Your task to perform on an android device: Is it going to rain this weekend? Image 0: 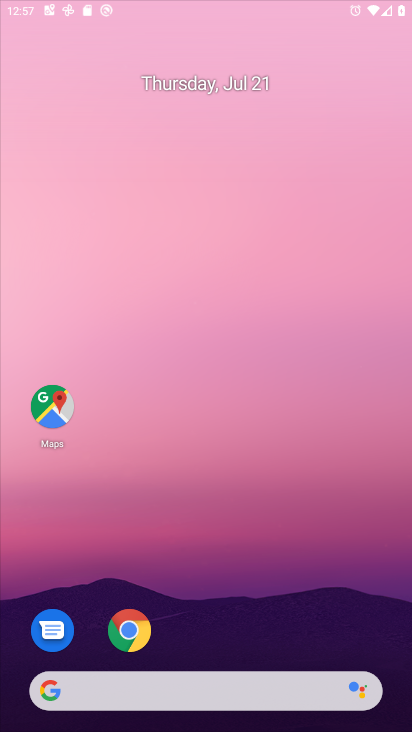
Step 0: drag from (224, 649) to (298, 102)
Your task to perform on an android device: Is it going to rain this weekend? Image 1: 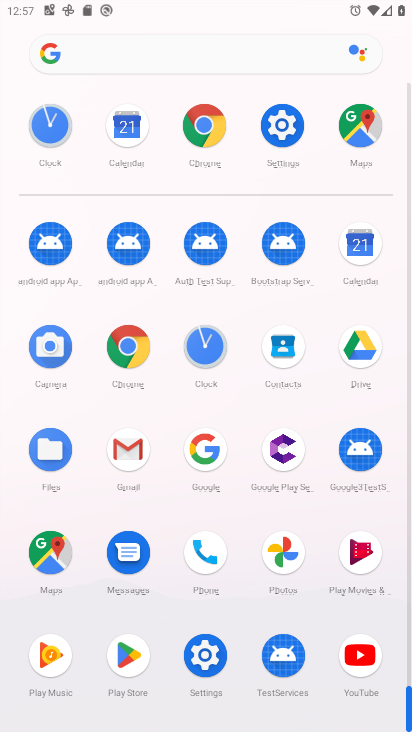
Step 1: click (350, 231)
Your task to perform on an android device: Is it going to rain this weekend? Image 2: 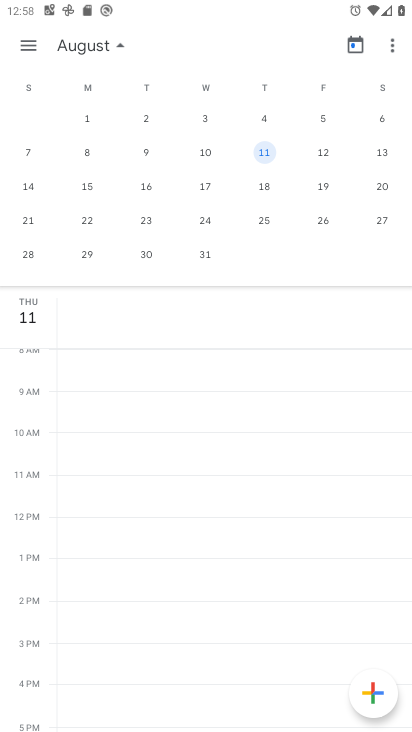
Step 2: press home button
Your task to perform on an android device: Is it going to rain this weekend? Image 3: 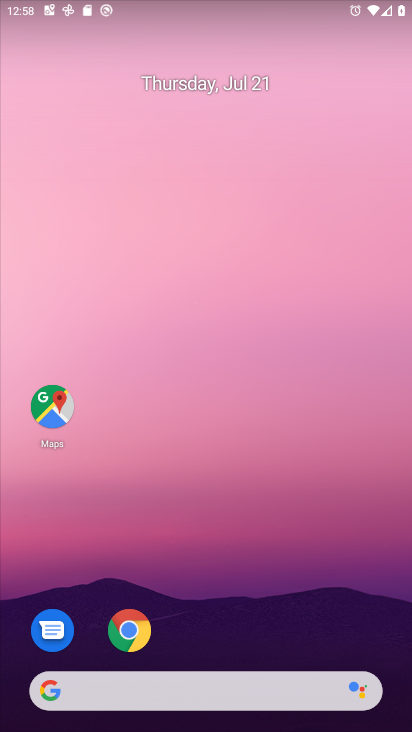
Step 3: drag from (245, 531) to (33, 262)
Your task to perform on an android device: Is it going to rain this weekend? Image 4: 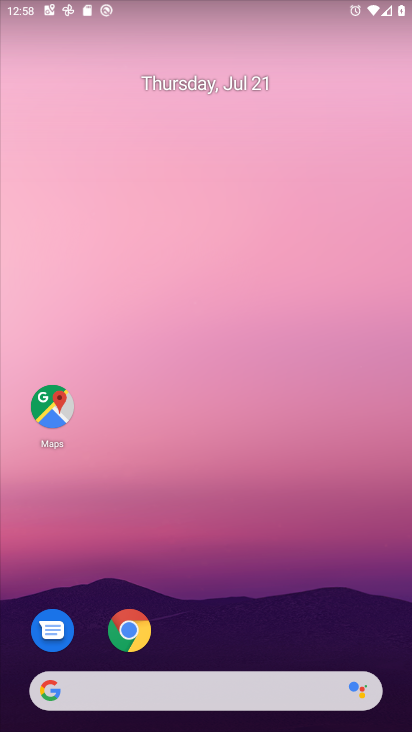
Step 4: drag from (203, 574) to (297, 1)
Your task to perform on an android device: Is it going to rain this weekend? Image 5: 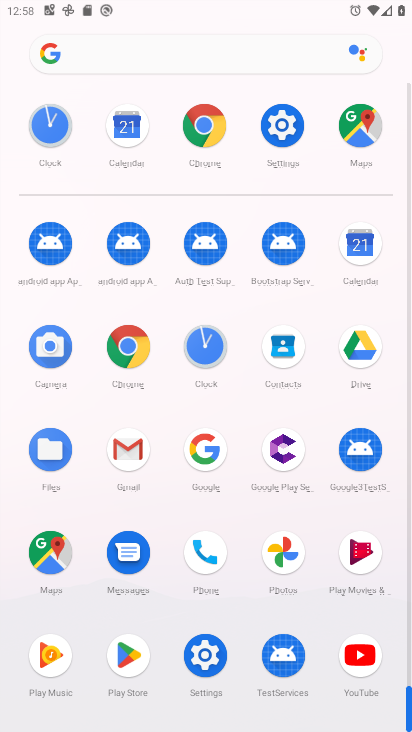
Step 5: click (156, 60)
Your task to perform on an android device: Is it going to rain this weekend? Image 6: 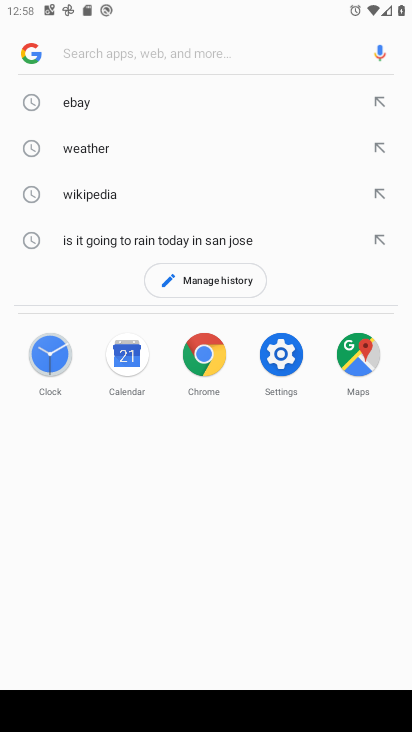
Step 6: type "Is it going to rain this weekend?"
Your task to perform on an android device: Is it going to rain this weekend? Image 7: 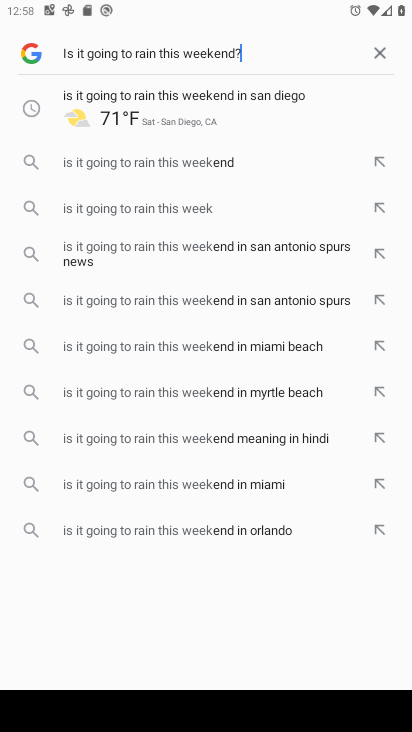
Step 7: type ""
Your task to perform on an android device: Is it going to rain this weekend? Image 8: 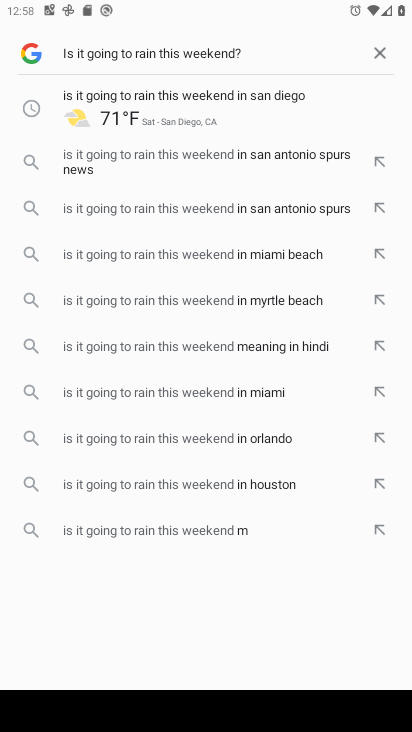
Step 8: click (106, 108)
Your task to perform on an android device: Is it going to rain this weekend? Image 9: 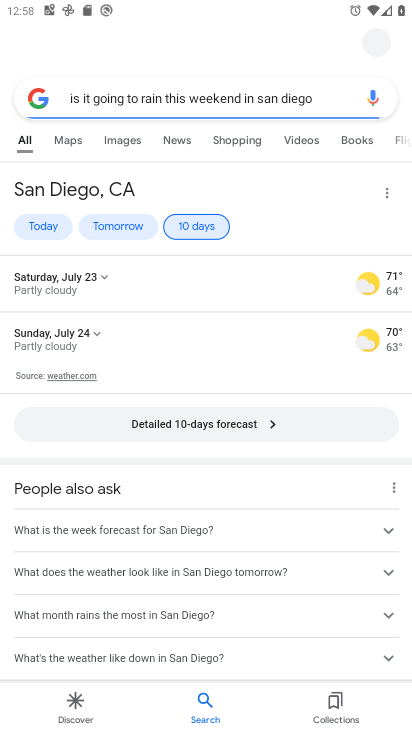
Step 9: task complete